Your task to perform on an android device: Open Google Chrome and click the shortcut for Amazon.com Image 0: 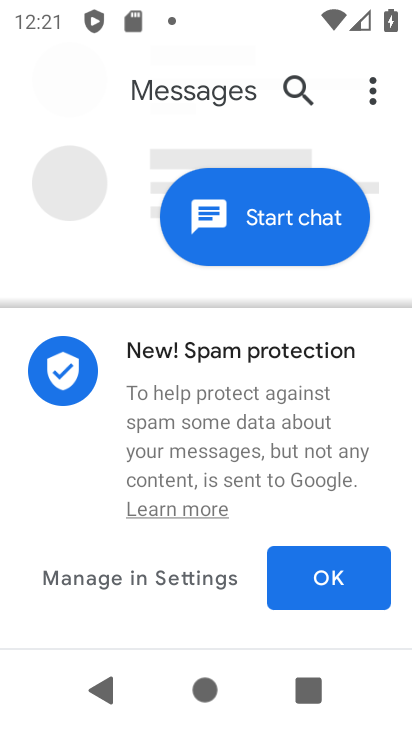
Step 0: press home button
Your task to perform on an android device: Open Google Chrome and click the shortcut for Amazon.com Image 1: 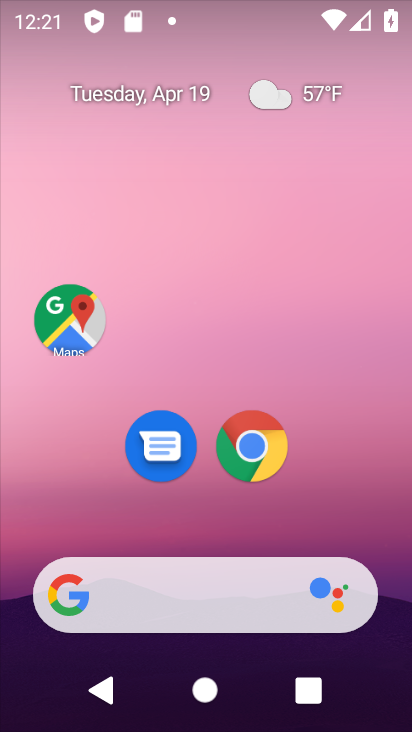
Step 1: click (265, 435)
Your task to perform on an android device: Open Google Chrome and click the shortcut for Amazon.com Image 2: 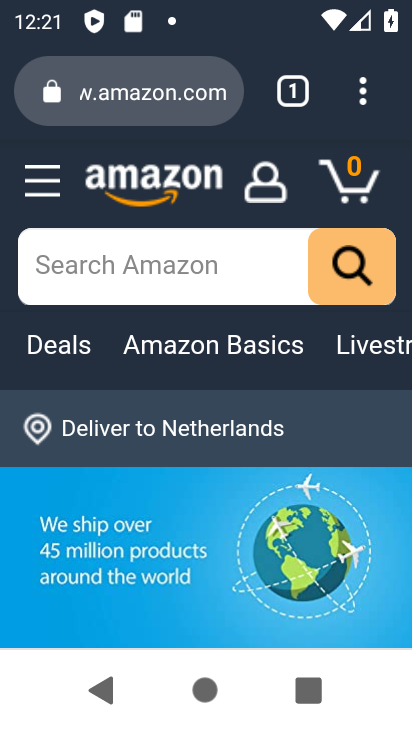
Step 2: task complete